Your task to perform on an android device: toggle notifications settings in the gmail app Image 0: 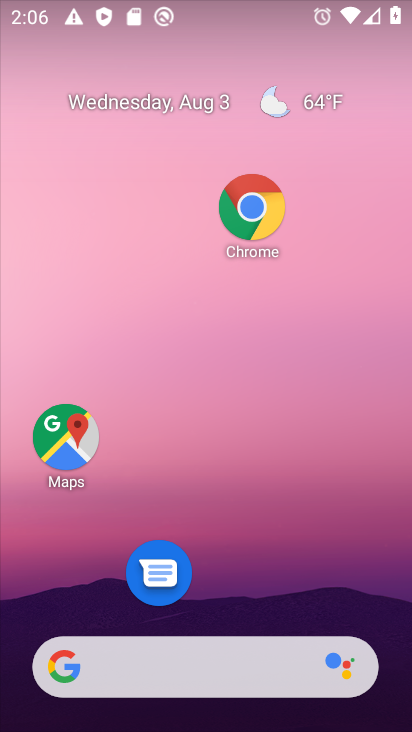
Step 0: drag from (203, 646) to (239, 160)
Your task to perform on an android device: toggle notifications settings in the gmail app Image 1: 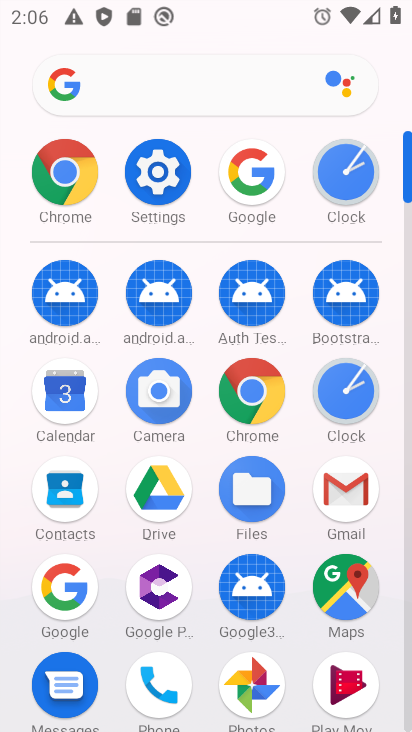
Step 1: click (335, 485)
Your task to perform on an android device: toggle notifications settings in the gmail app Image 2: 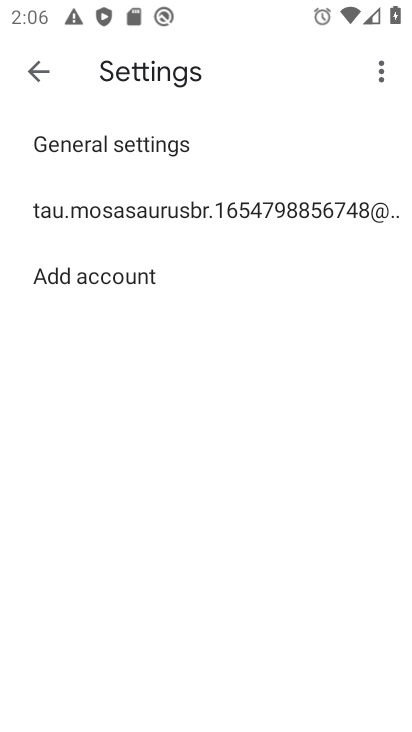
Step 2: click (48, 71)
Your task to perform on an android device: toggle notifications settings in the gmail app Image 3: 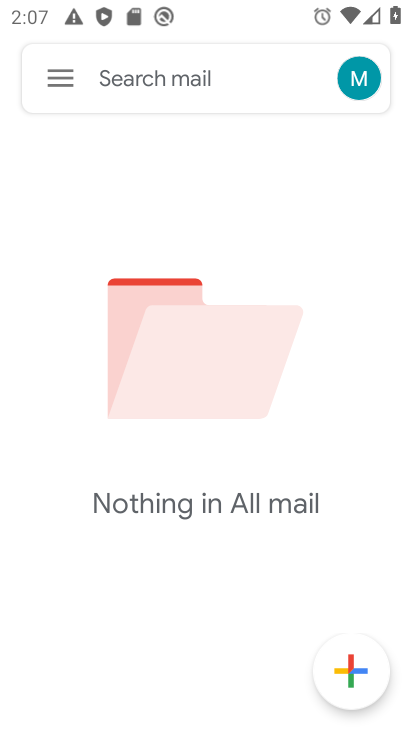
Step 3: click (55, 78)
Your task to perform on an android device: toggle notifications settings in the gmail app Image 4: 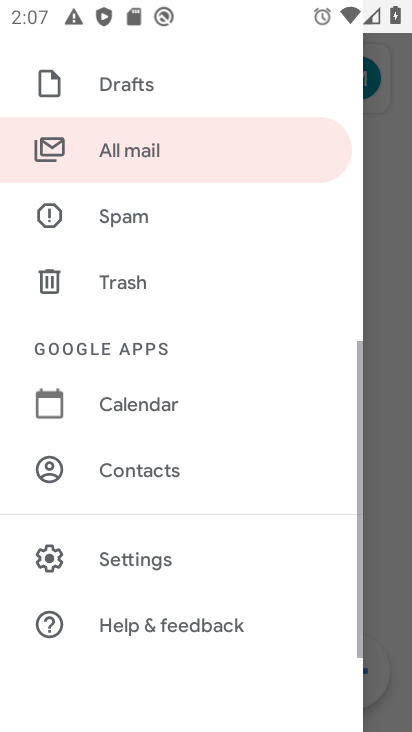
Step 4: click (143, 564)
Your task to perform on an android device: toggle notifications settings in the gmail app Image 5: 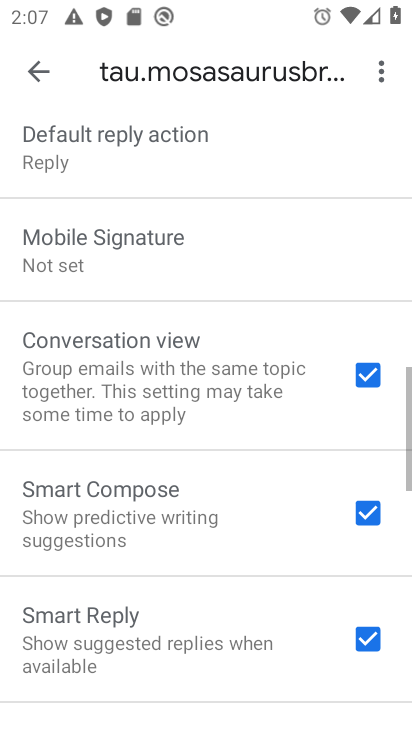
Step 5: drag from (149, 512) to (151, 233)
Your task to perform on an android device: toggle notifications settings in the gmail app Image 6: 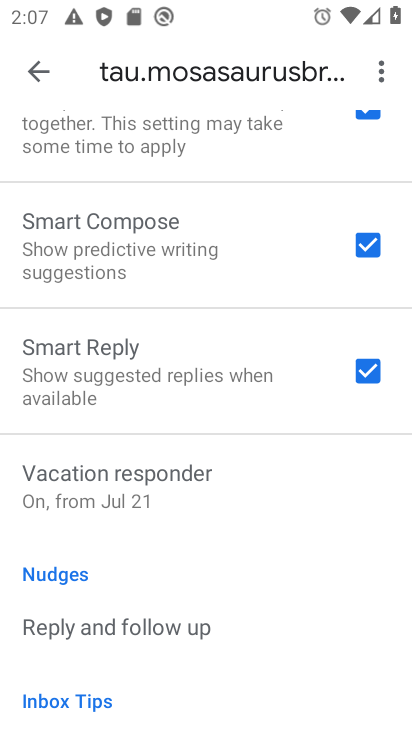
Step 6: click (47, 74)
Your task to perform on an android device: toggle notifications settings in the gmail app Image 7: 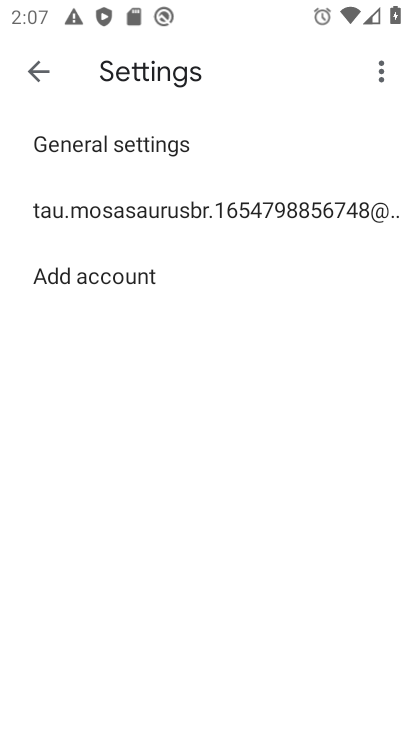
Step 7: click (106, 150)
Your task to perform on an android device: toggle notifications settings in the gmail app Image 8: 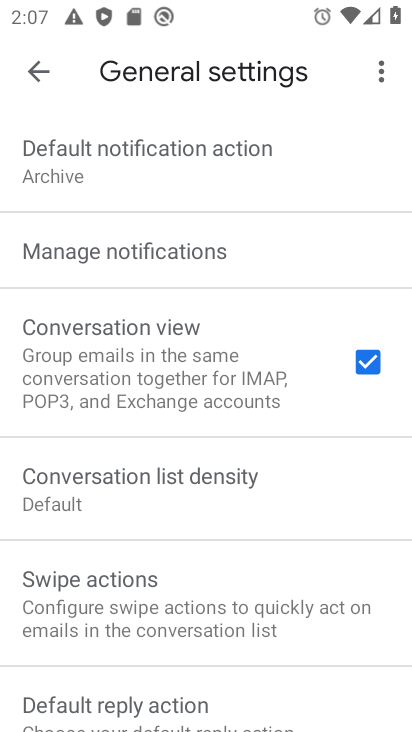
Step 8: click (278, 244)
Your task to perform on an android device: toggle notifications settings in the gmail app Image 9: 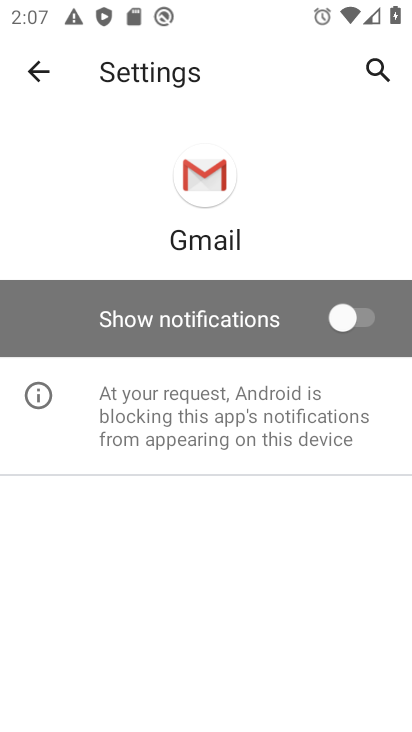
Step 9: task complete